Your task to perform on an android device: toggle sleep mode Image 0: 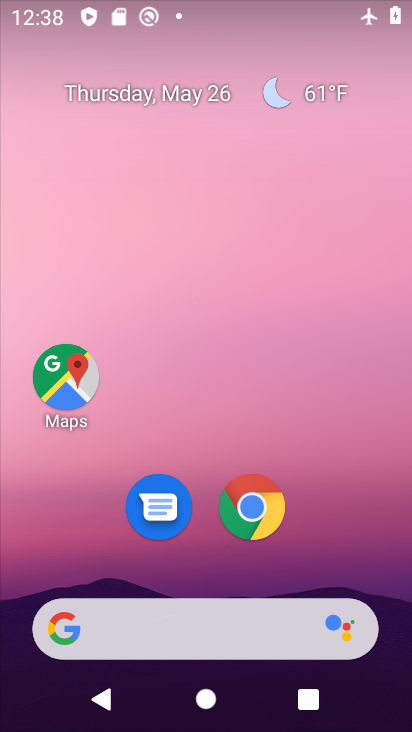
Step 0: drag from (360, 536) to (313, 112)
Your task to perform on an android device: toggle sleep mode Image 1: 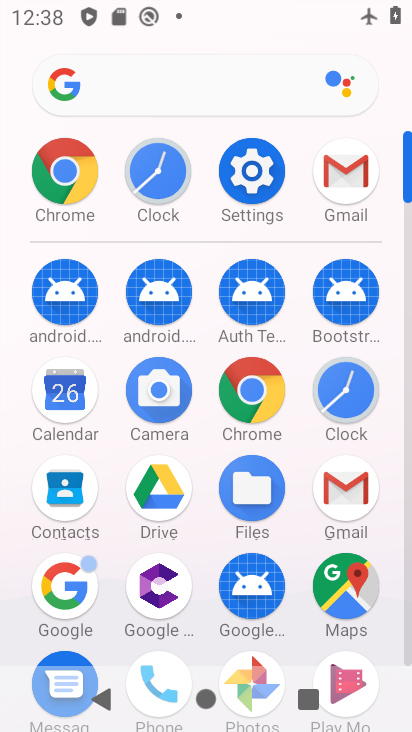
Step 1: click (269, 161)
Your task to perform on an android device: toggle sleep mode Image 2: 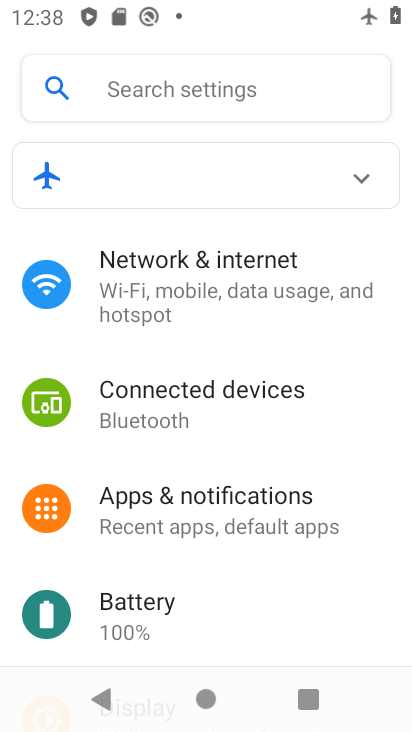
Step 2: drag from (218, 582) to (288, 50)
Your task to perform on an android device: toggle sleep mode Image 3: 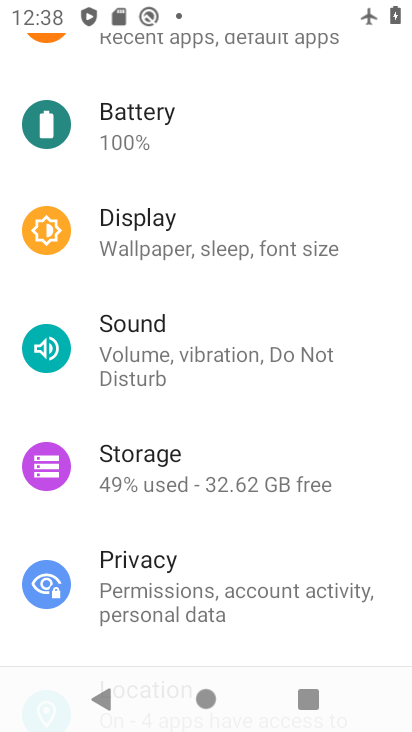
Step 3: click (291, 238)
Your task to perform on an android device: toggle sleep mode Image 4: 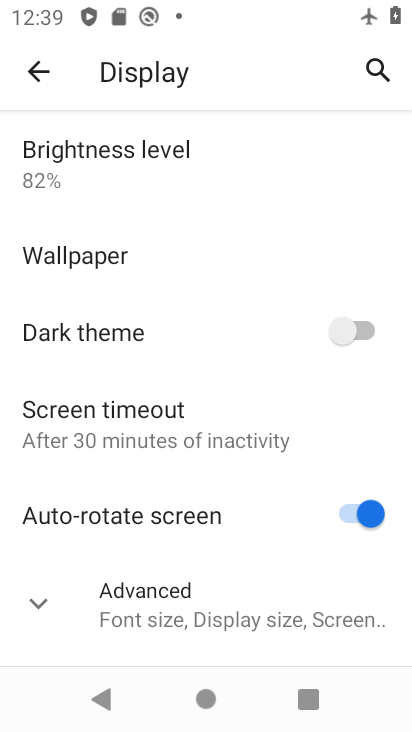
Step 4: click (222, 425)
Your task to perform on an android device: toggle sleep mode Image 5: 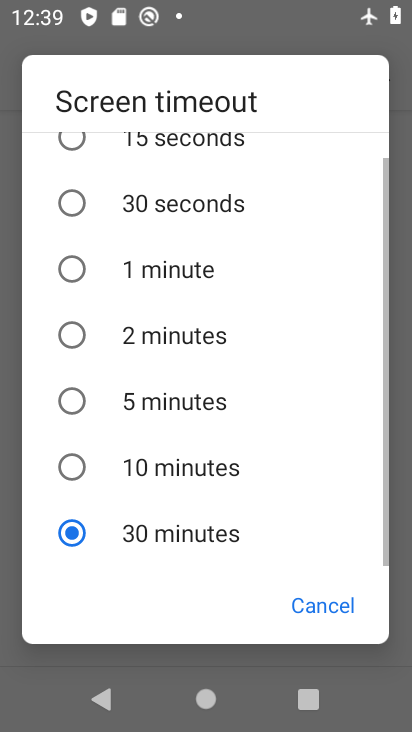
Step 5: task complete